Your task to perform on an android device: Set the phone to "Do not disturb". Image 0: 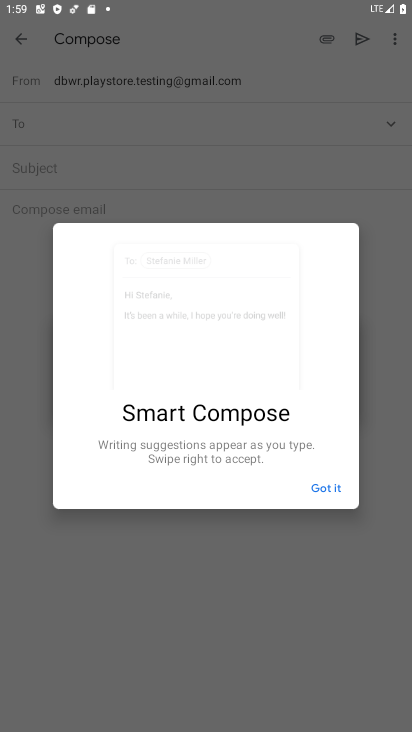
Step 0: press home button
Your task to perform on an android device: Set the phone to "Do not disturb". Image 1: 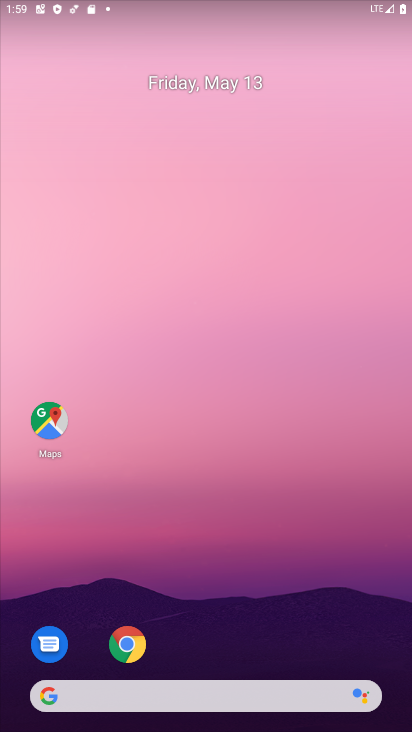
Step 1: drag from (323, 625) to (276, 328)
Your task to perform on an android device: Set the phone to "Do not disturb". Image 2: 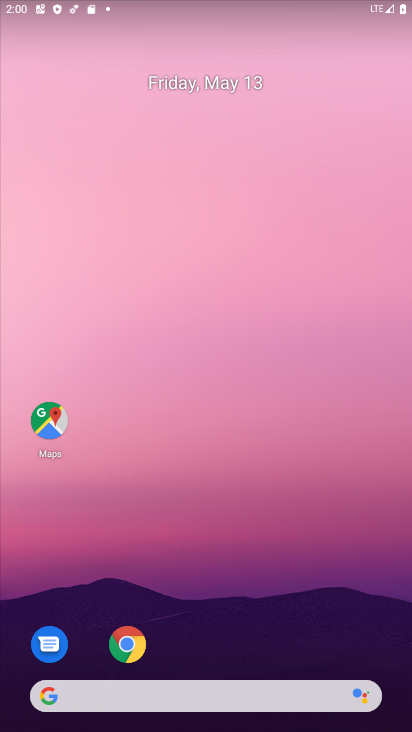
Step 2: drag from (195, 2) to (258, 641)
Your task to perform on an android device: Set the phone to "Do not disturb". Image 3: 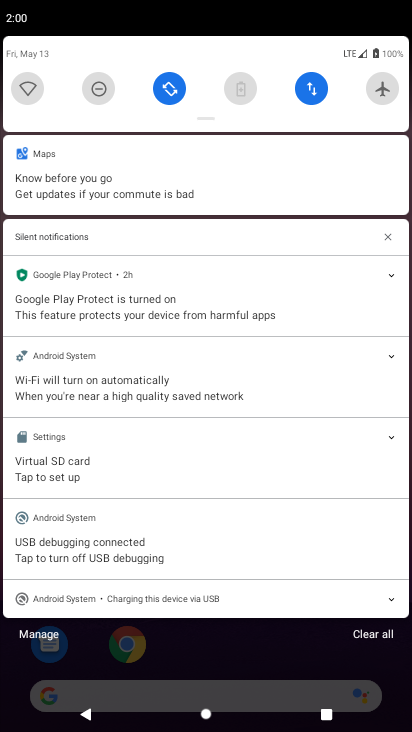
Step 3: click (98, 82)
Your task to perform on an android device: Set the phone to "Do not disturb". Image 4: 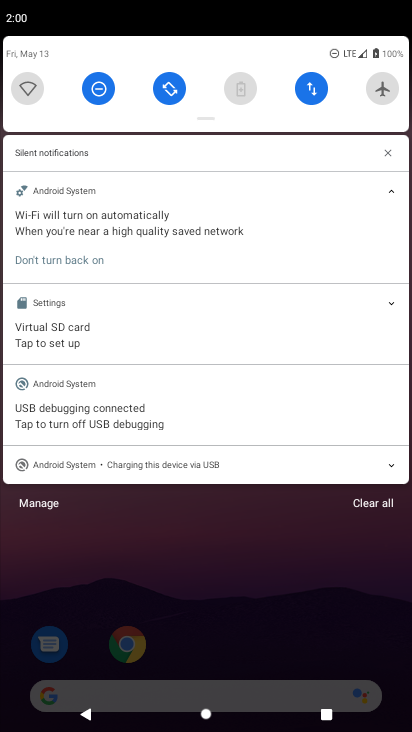
Step 4: task complete